Your task to perform on an android device: Search for vegetarian restaurants on Maps Image 0: 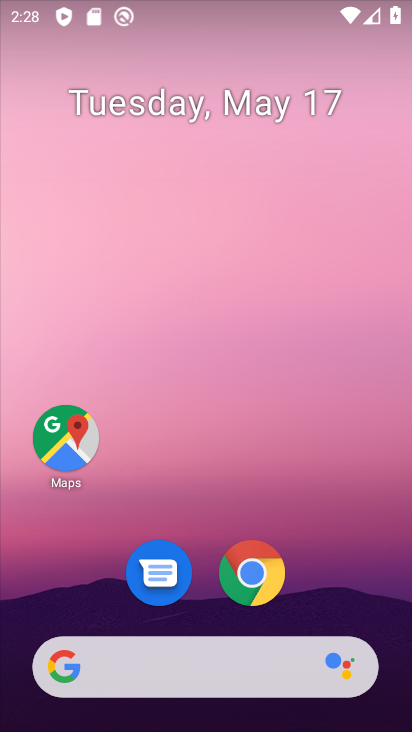
Step 0: drag from (360, 515) to (372, 96)
Your task to perform on an android device: Search for vegetarian restaurants on Maps Image 1: 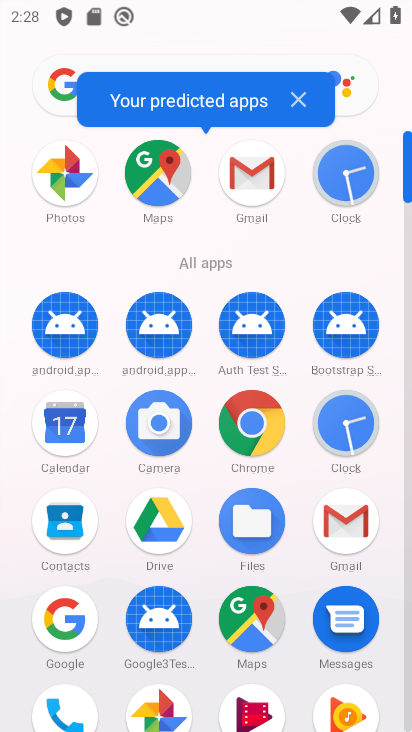
Step 1: drag from (289, 652) to (302, 337)
Your task to perform on an android device: Search for vegetarian restaurants on Maps Image 2: 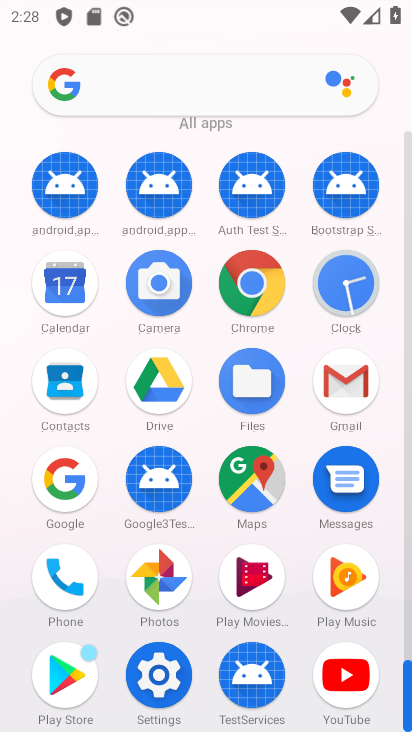
Step 2: click (274, 488)
Your task to perform on an android device: Search for vegetarian restaurants on Maps Image 3: 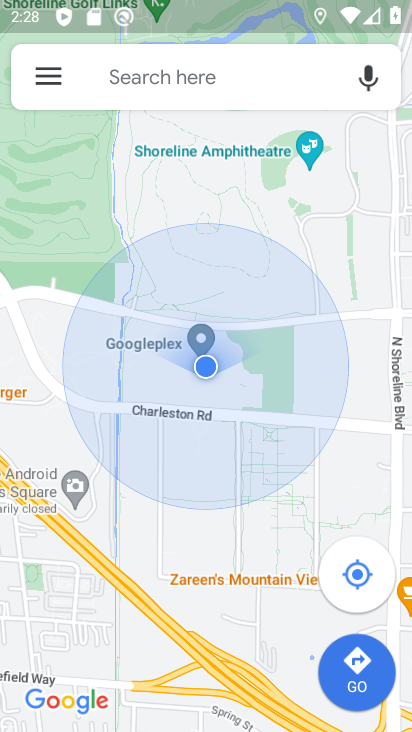
Step 3: click (232, 77)
Your task to perform on an android device: Search for vegetarian restaurants on Maps Image 4: 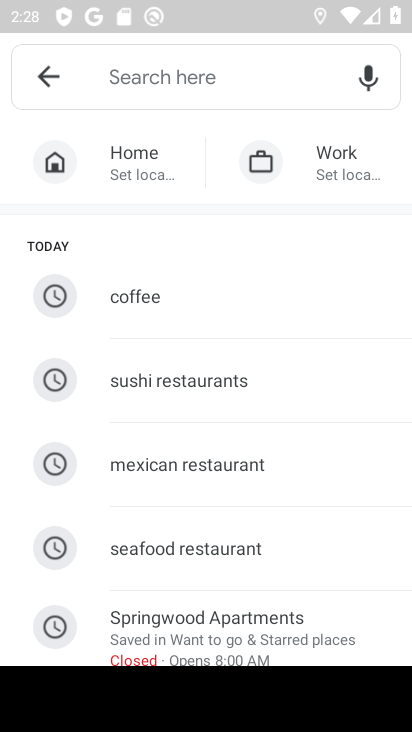
Step 4: type "vegetarian restaurants"
Your task to perform on an android device: Search for vegetarian restaurants on Maps Image 5: 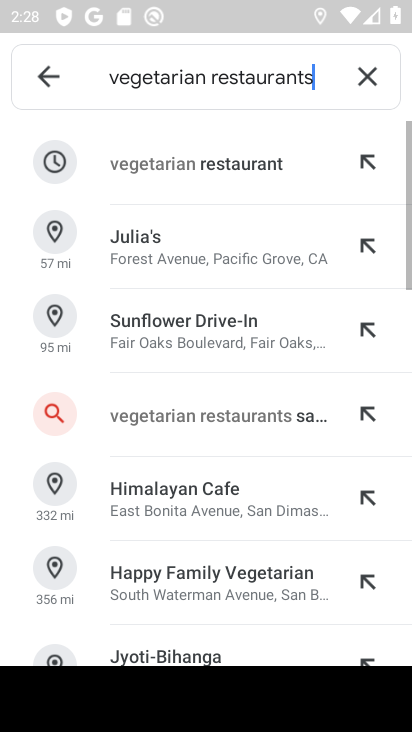
Step 5: click (233, 187)
Your task to perform on an android device: Search for vegetarian restaurants on Maps Image 6: 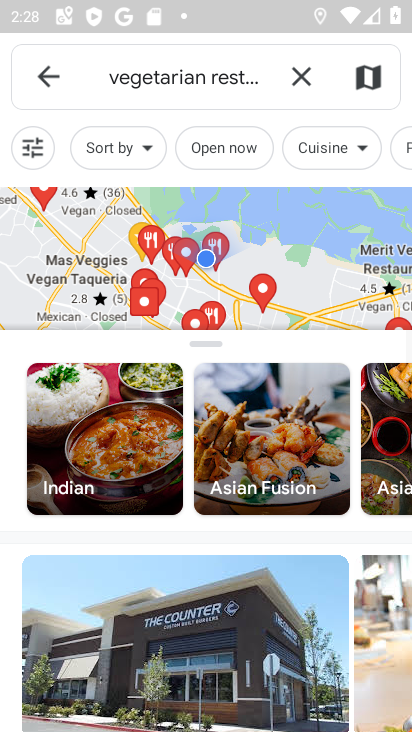
Step 6: task complete